Your task to perform on an android device: Open Chrome and go to the settings page Image 0: 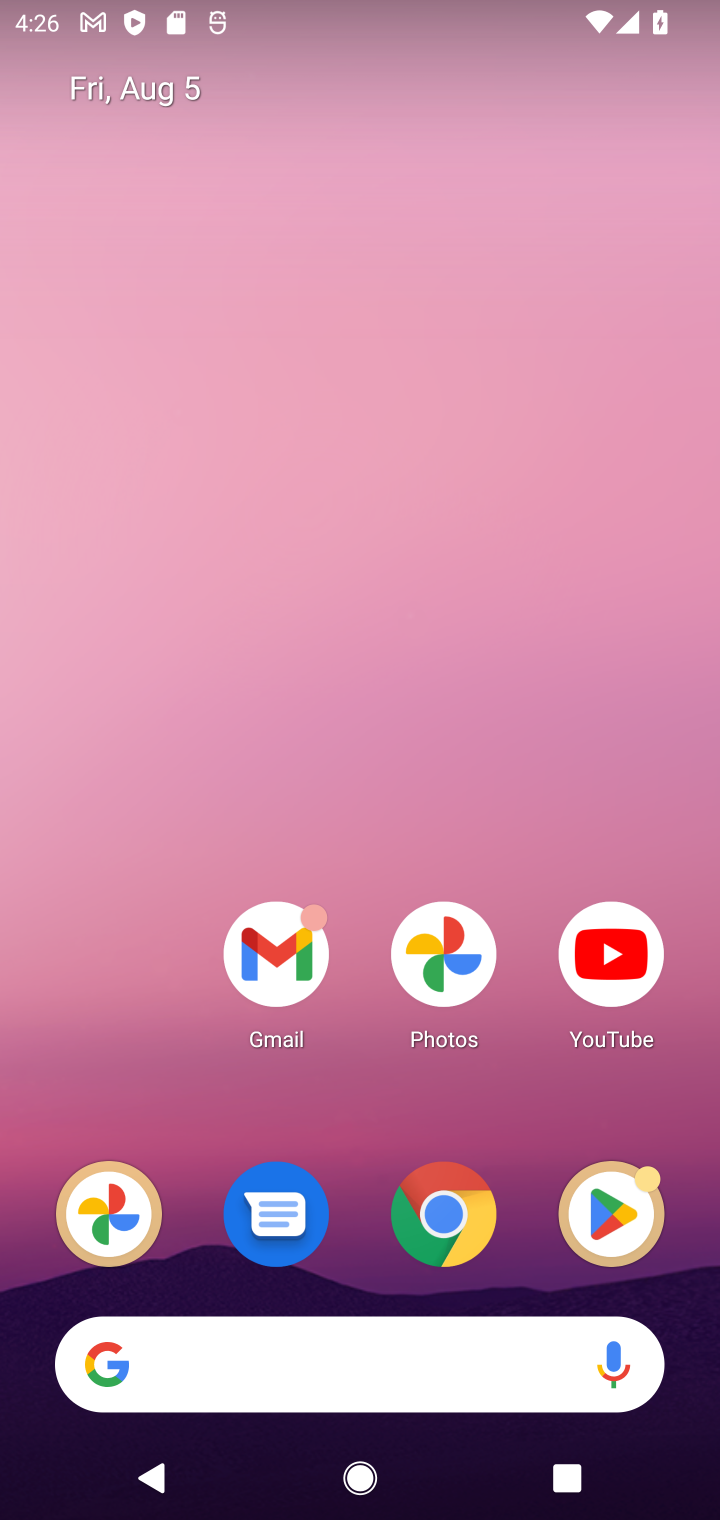
Step 0: click (457, 1219)
Your task to perform on an android device: Open Chrome and go to the settings page Image 1: 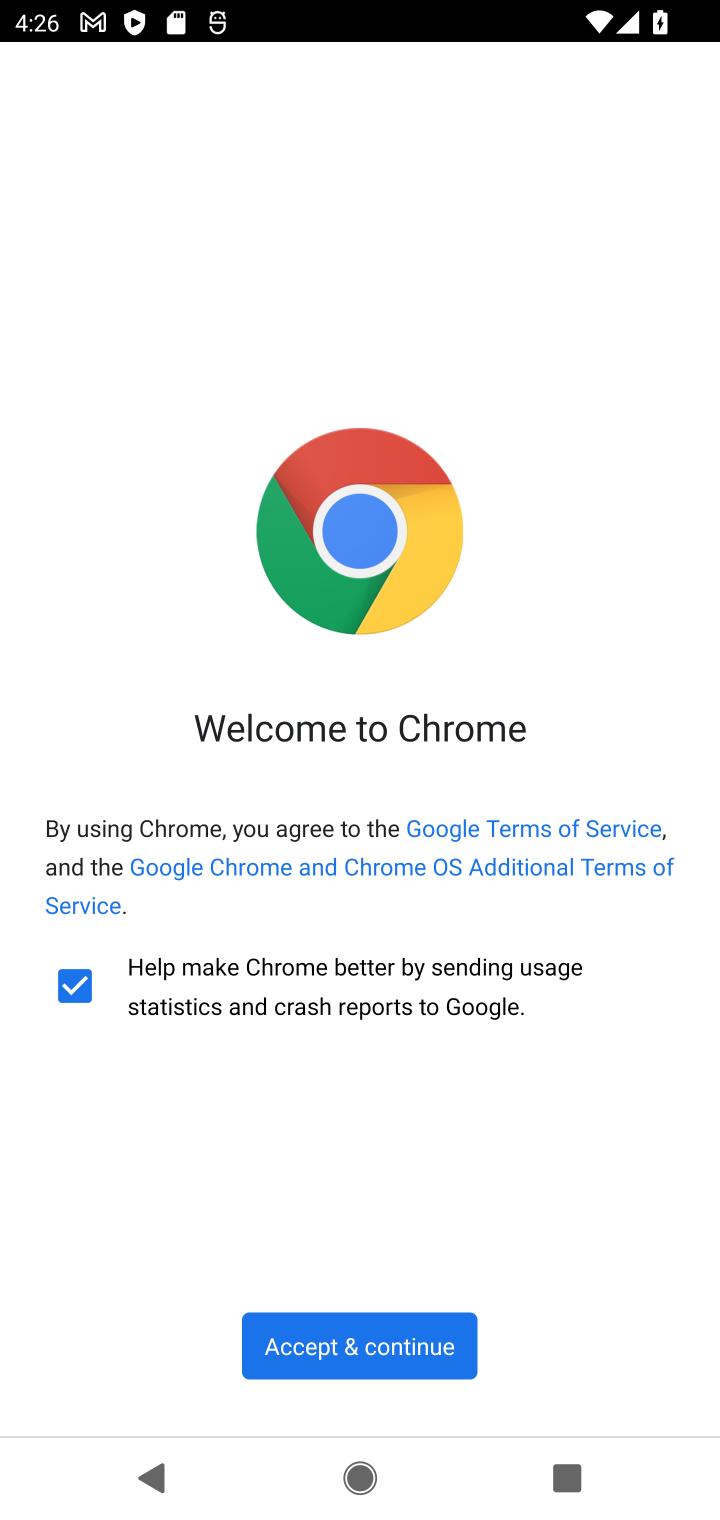
Step 1: click (395, 1338)
Your task to perform on an android device: Open Chrome and go to the settings page Image 2: 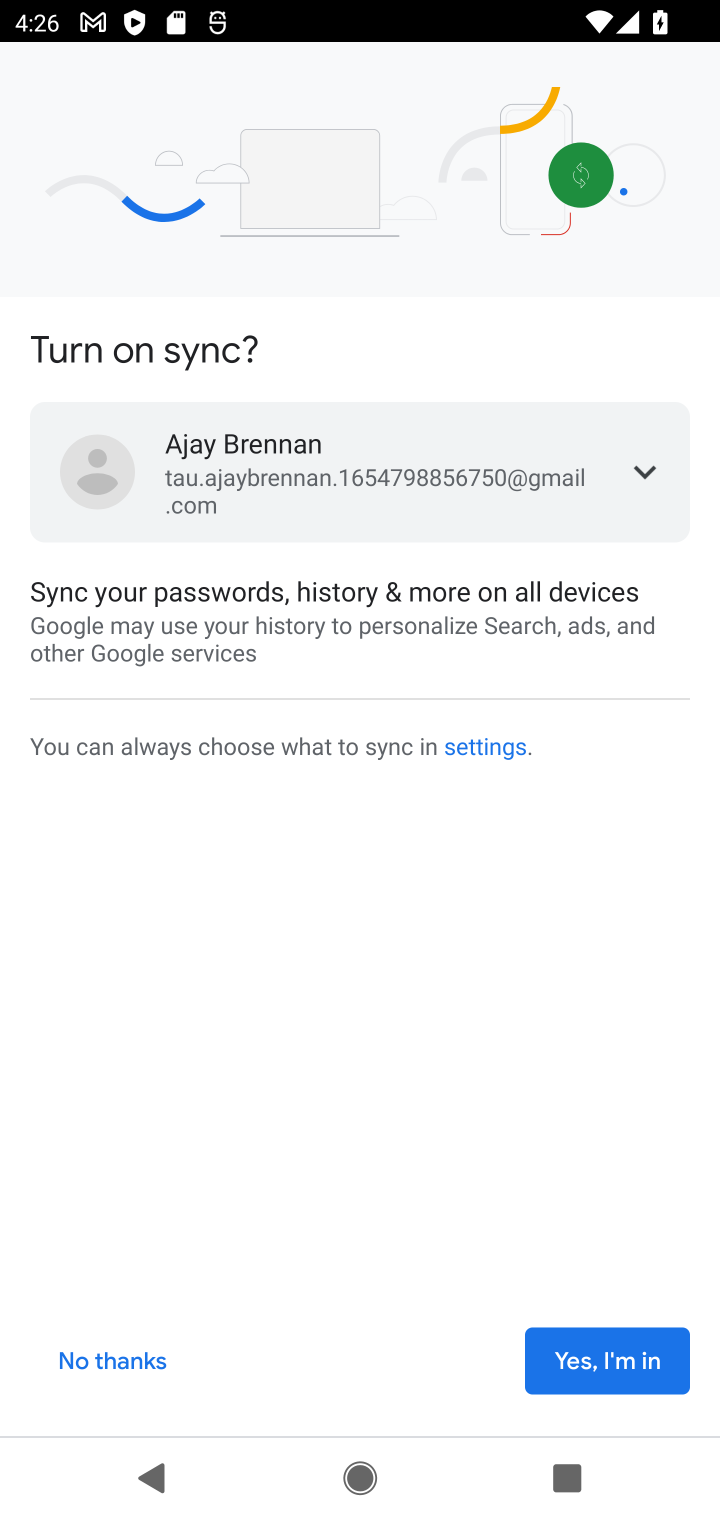
Step 2: click (586, 1357)
Your task to perform on an android device: Open Chrome and go to the settings page Image 3: 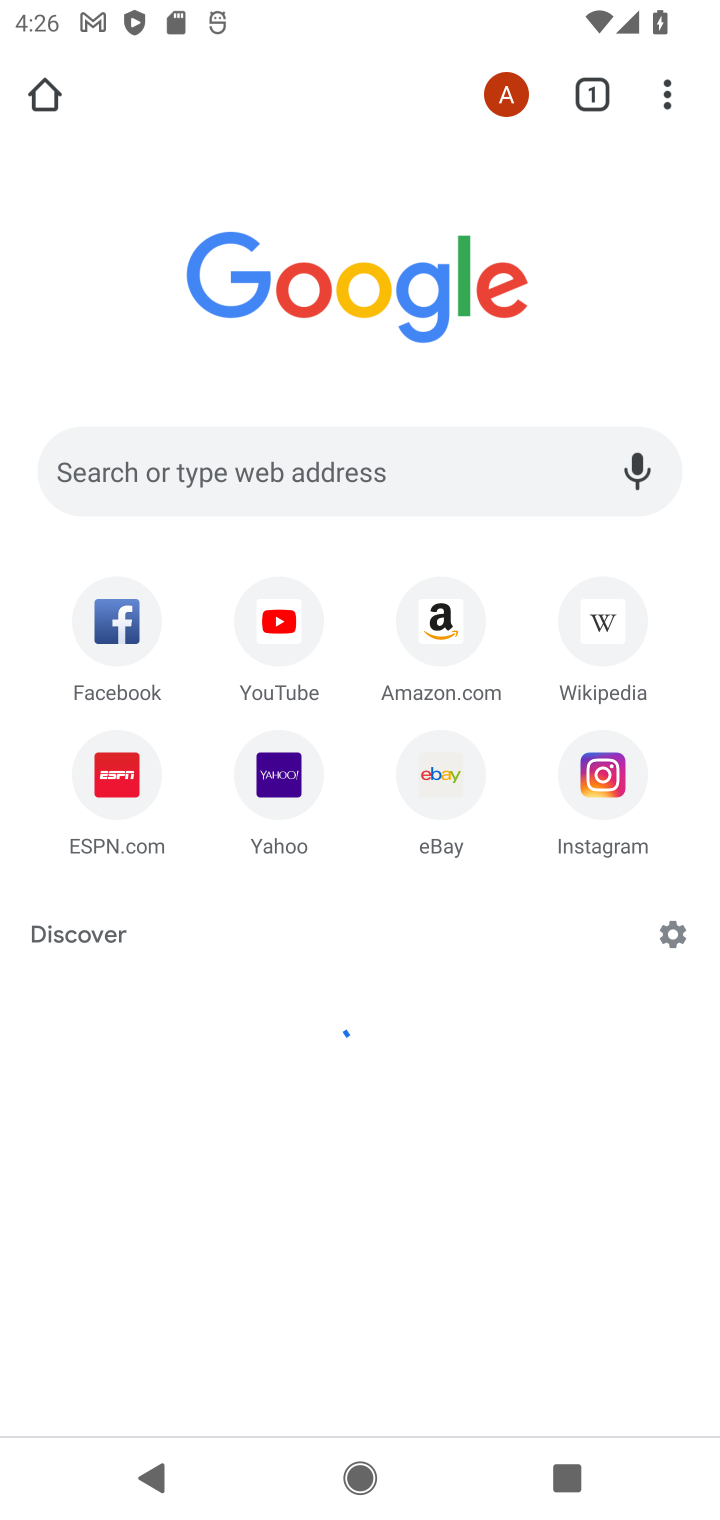
Step 3: click (657, 103)
Your task to perform on an android device: Open Chrome and go to the settings page Image 4: 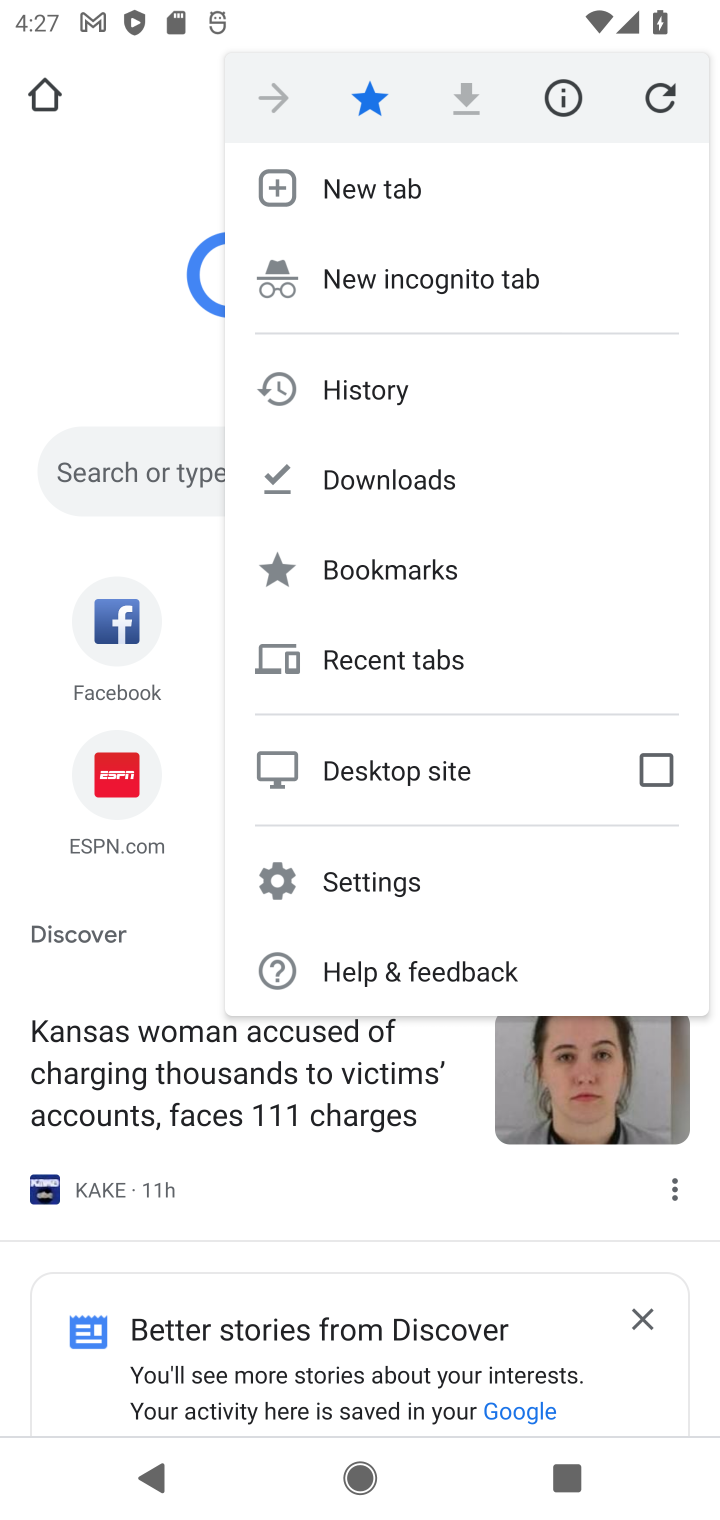
Step 4: click (411, 884)
Your task to perform on an android device: Open Chrome and go to the settings page Image 5: 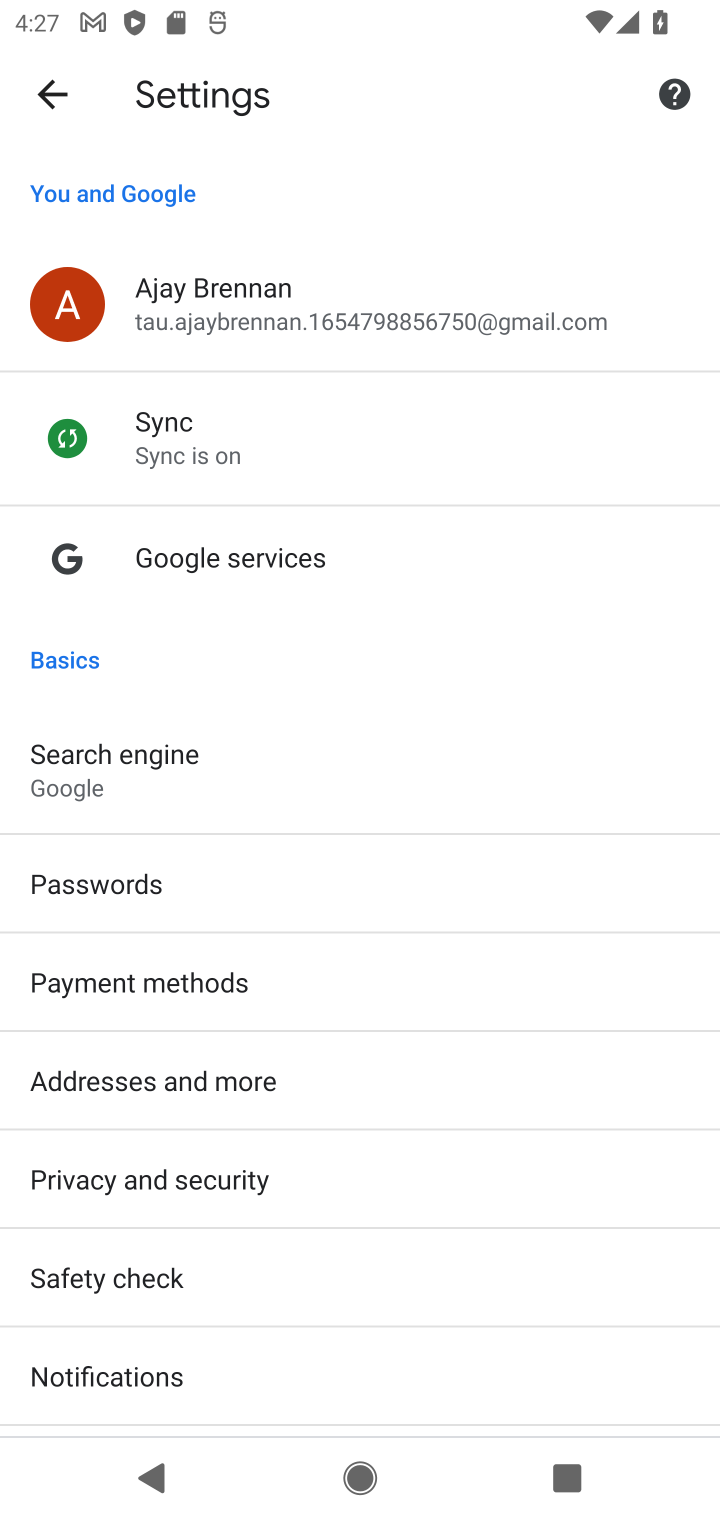
Step 5: task complete